Your task to perform on an android device: Open calendar and show me the fourth week of next month Image 0: 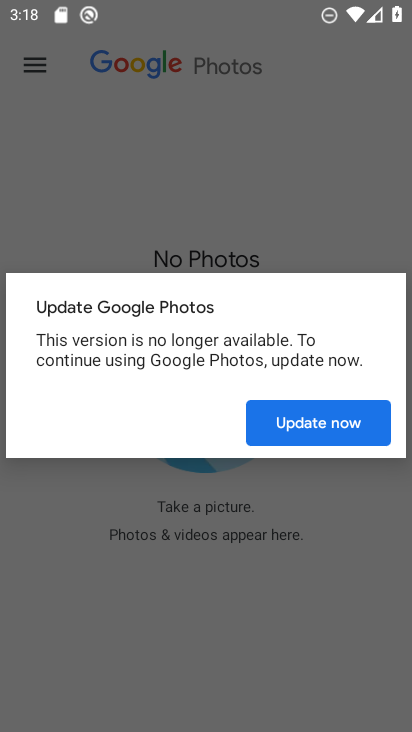
Step 0: press home button
Your task to perform on an android device: Open calendar and show me the fourth week of next month Image 1: 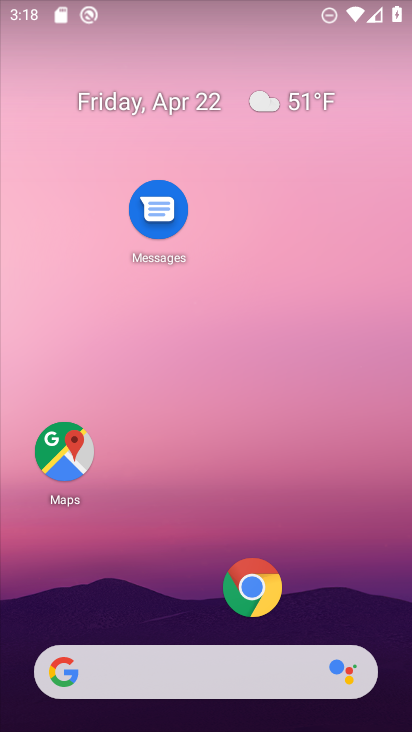
Step 1: drag from (194, 612) to (242, 152)
Your task to perform on an android device: Open calendar and show me the fourth week of next month Image 2: 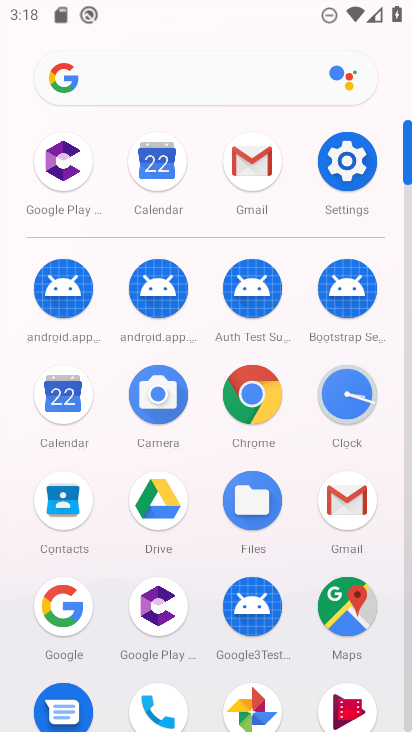
Step 2: click (164, 161)
Your task to perform on an android device: Open calendar and show me the fourth week of next month Image 3: 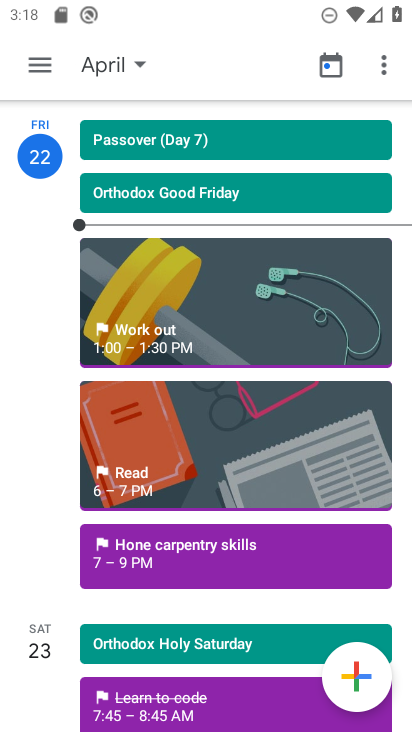
Step 3: click (108, 60)
Your task to perform on an android device: Open calendar and show me the fourth week of next month Image 4: 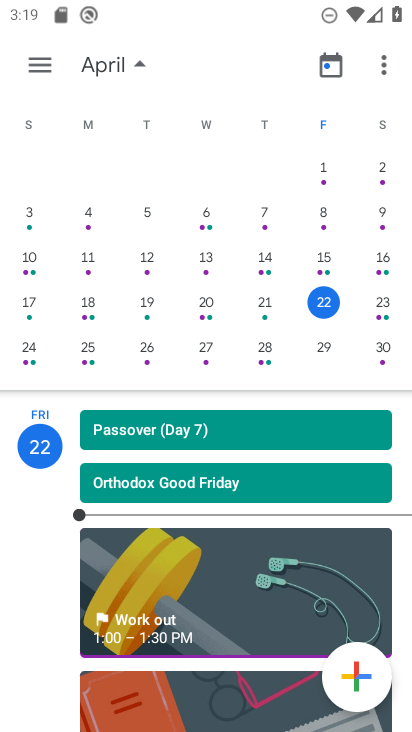
Step 4: drag from (349, 265) to (40, 184)
Your task to perform on an android device: Open calendar and show me the fourth week of next month Image 5: 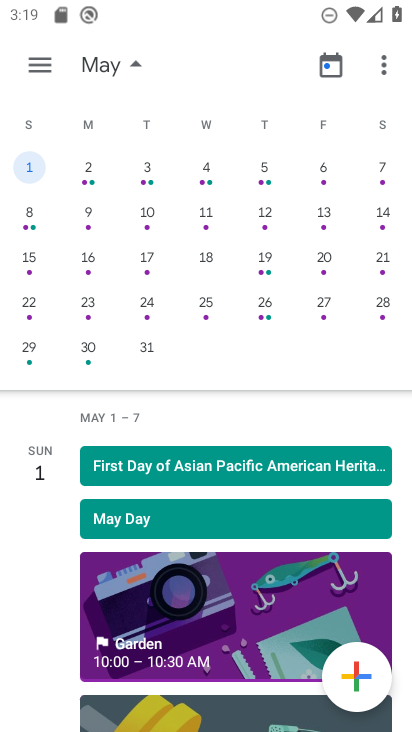
Step 5: click (27, 297)
Your task to perform on an android device: Open calendar and show me the fourth week of next month Image 6: 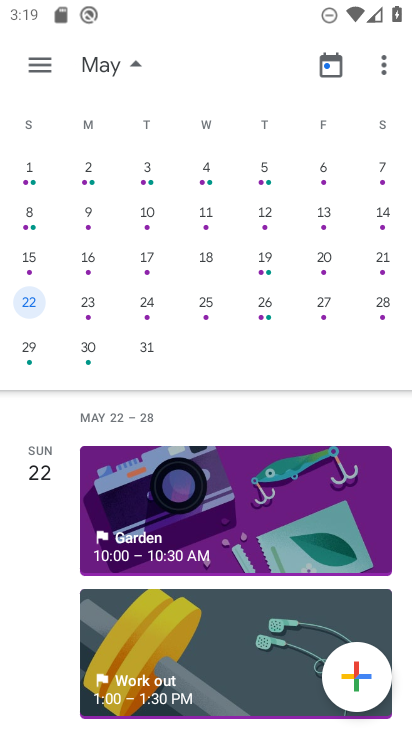
Step 6: task complete